Your task to perform on an android device: Go to CNN.com Image 0: 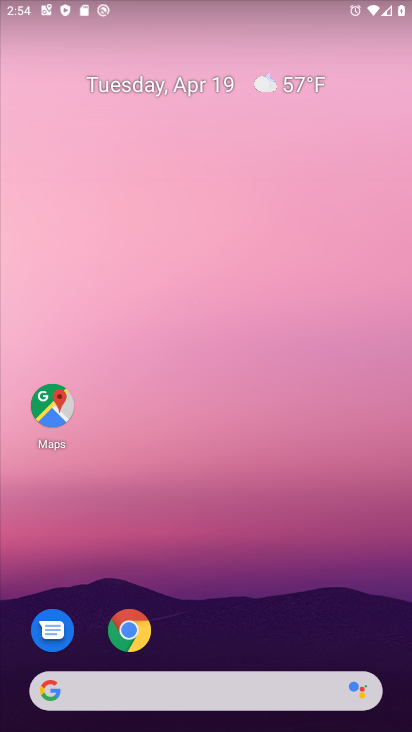
Step 0: click (132, 628)
Your task to perform on an android device: Go to CNN.com Image 1: 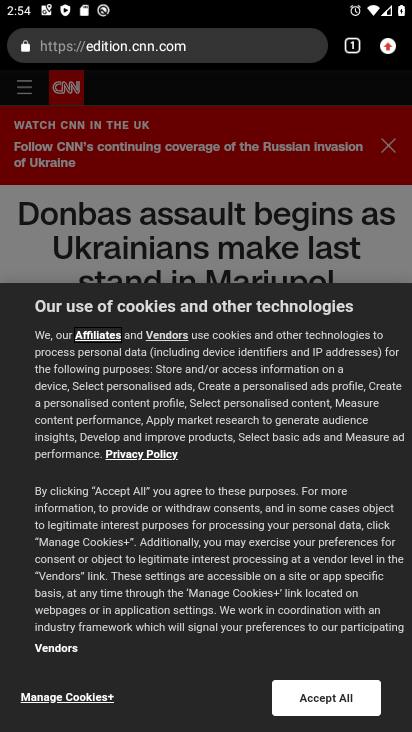
Step 1: click (213, 691)
Your task to perform on an android device: Go to CNN.com Image 2: 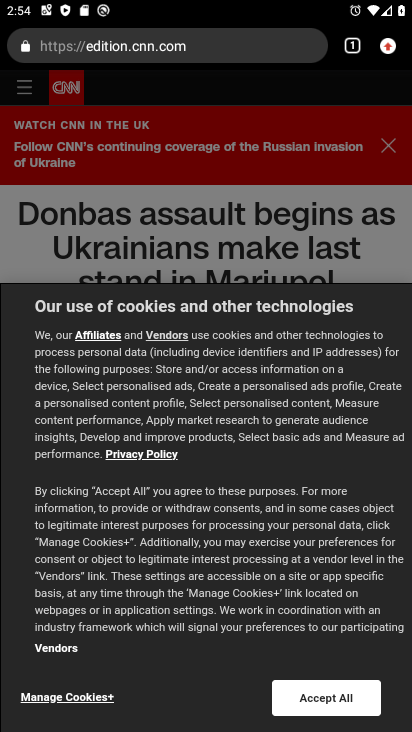
Step 2: click (296, 700)
Your task to perform on an android device: Go to CNN.com Image 3: 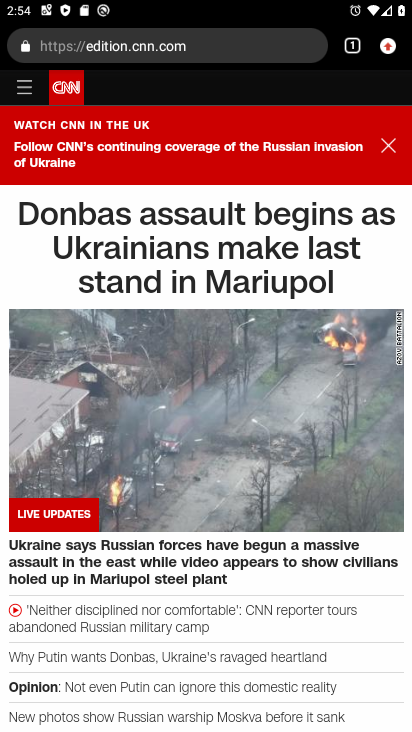
Step 3: task complete